Your task to perform on an android device: Search for sushi restaurants on Maps Image 0: 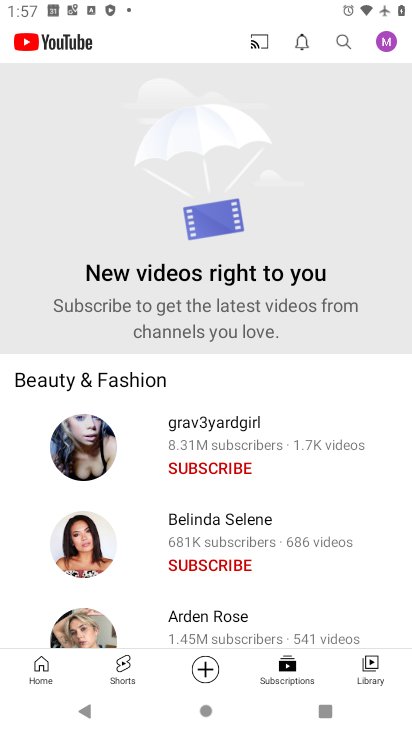
Step 0: press home button
Your task to perform on an android device: Search for sushi restaurants on Maps Image 1: 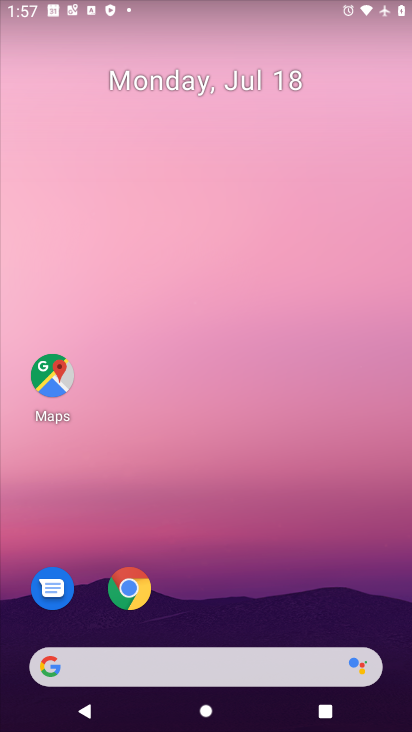
Step 1: drag from (208, 707) to (290, 259)
Your task to perform on an android device: Search for sushi restaurants on Maps Image 2: 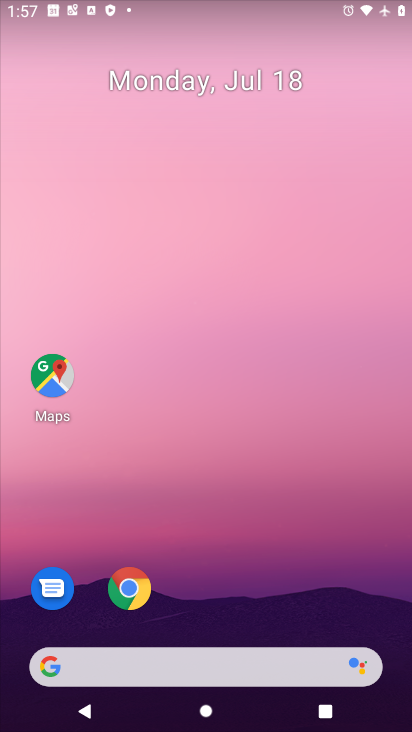
Step 2: drag from (238, 663) to (345, 292)
Your task to perform on an android device: Search for sushi restaurants on Maps Image 3: 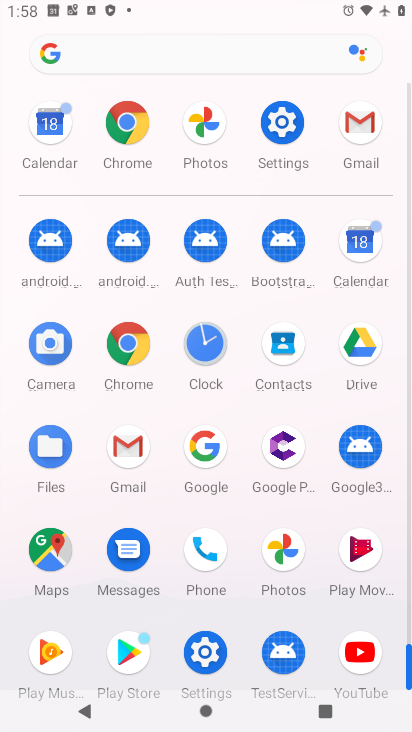
Step 3: click (52, 543)
Your task to perform on an android device: Search for sushi restaurants on Maps Image 4: 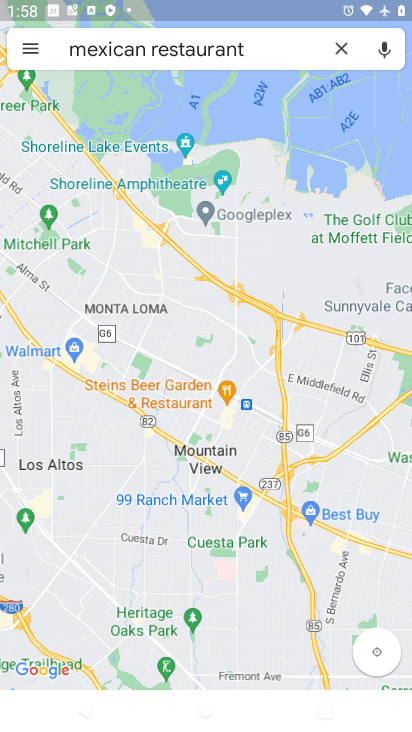
Step 4: click (349, 52)
Your task to perform on an android device: Search for sushi restaurants on Maps Image 5: 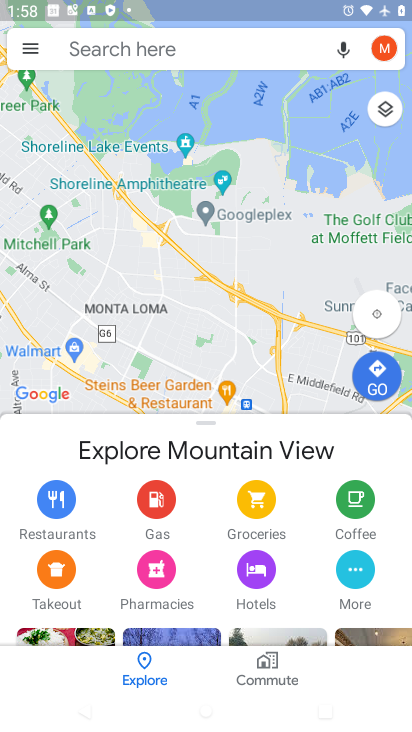
Step 5: click (272, 48)
Your task to perform on an android device: Search for sushi restaurants on Maps Image 6: 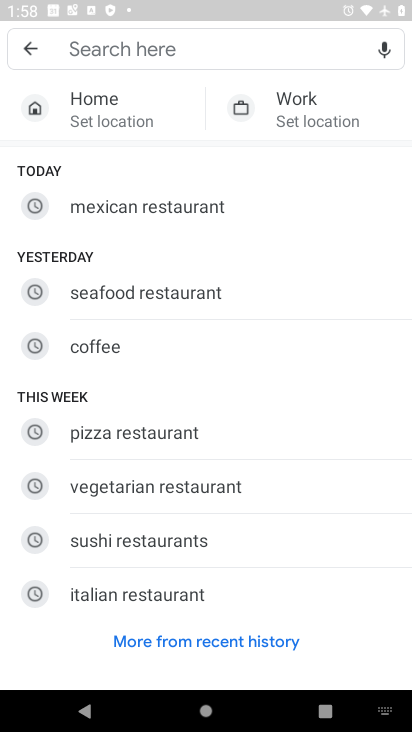
Step 6: click (156, 548)
Your task to perform on an android device: Search for sushi restaurants on Maps Image 7: 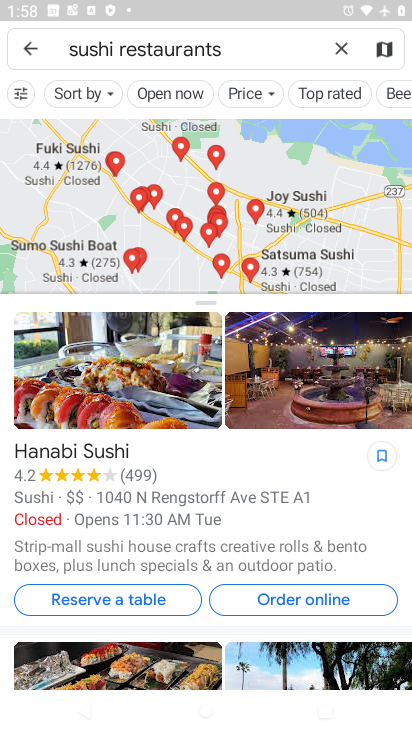
Step 7: task complete